Your task to perform on an android device: turn notification dots on Image 0: 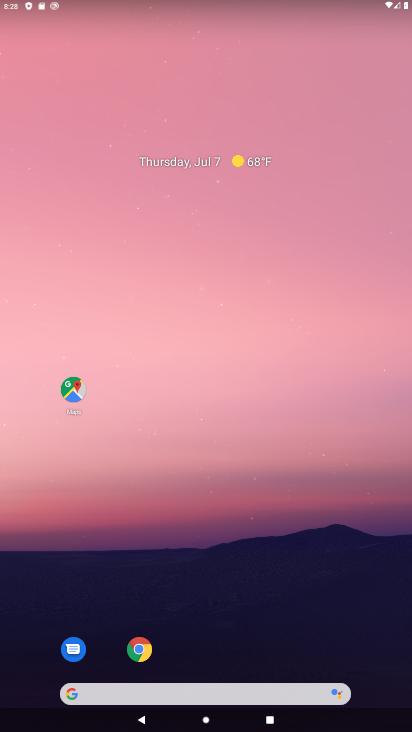
Step 0: drag from (198, 667) to (290, 0)
Your task to perform on an android device: turn notification dots on Image 1: 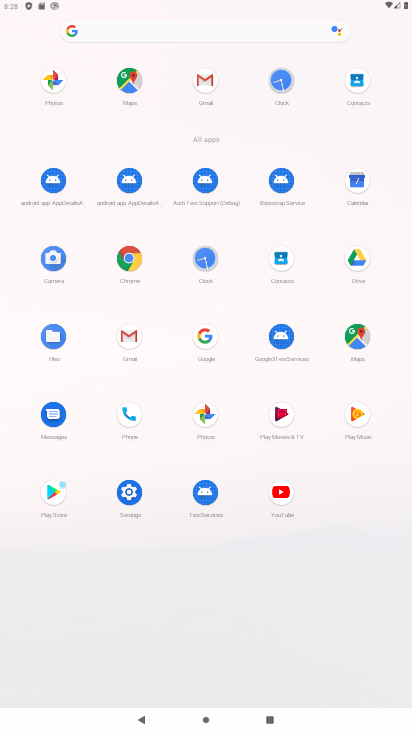
Step 1: click (121, 489)
Your task to perform on an android device: turn notification dots on Image 2: 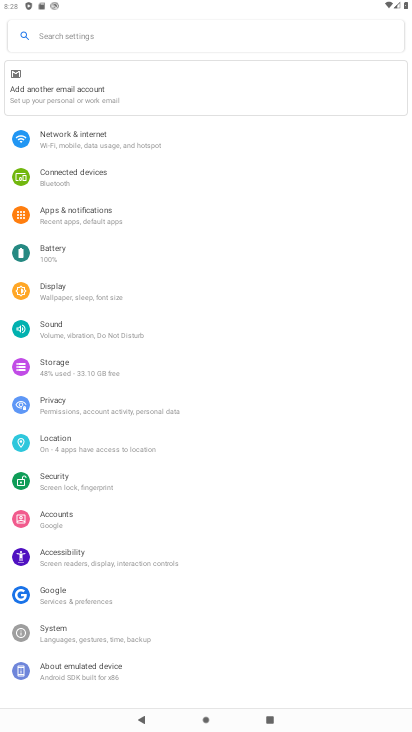
Step 2: click (81, 212)
Your task to perform on an android device: turn notification dots on Image 3: 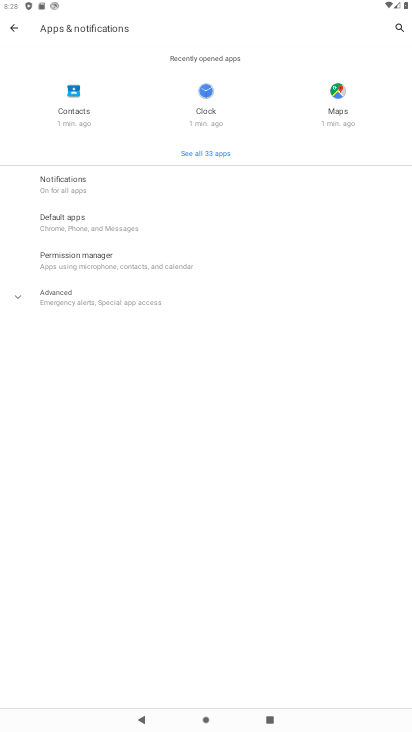
Step 3: click (57, 189)
Your task to perform on an android device: turn notification dots on Image 4: 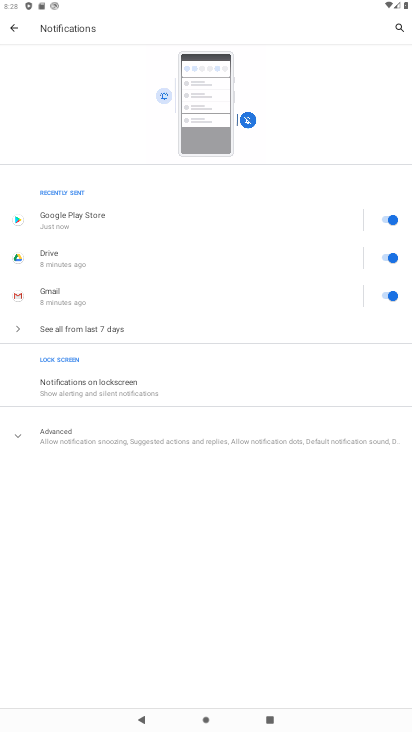
Step 4: click (111, 438)
Your task to perform on an android device: turn notification dots on Image 5: 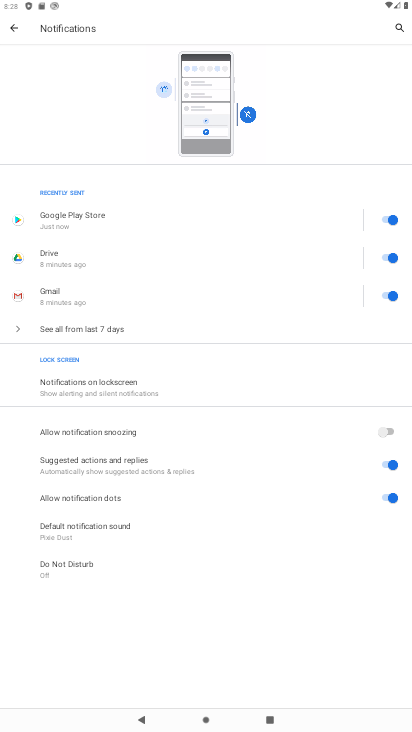
Step 5: task complete